Your task to perform on an android device: Go to display settings Image 0: 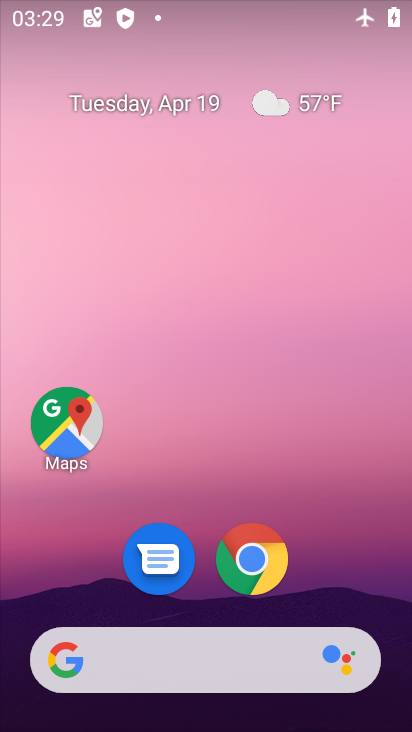
Step 0: click (214, 87)
Your task to perform on an android device: Go to display settings Image 1: 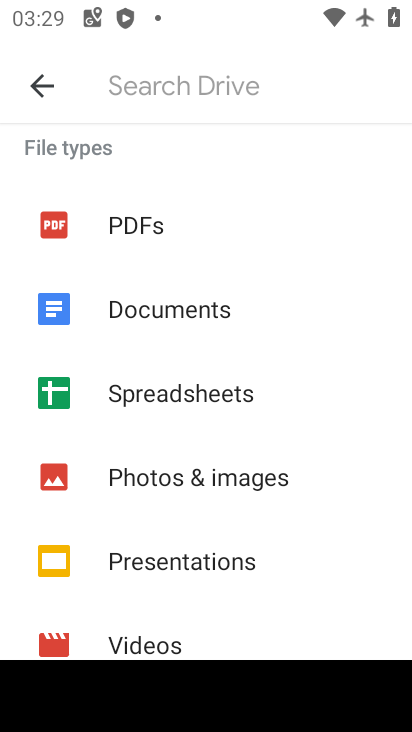
Step 1: press home button
Your task to perform on an android device: Go to display settings Image 2: 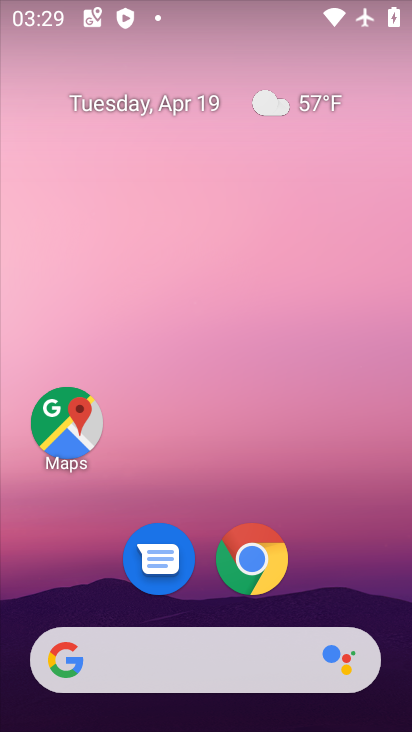
Step 2: drag from (202, 593) to (216, 72)
Your task to perform on an android device: Go to display settings Image 3: 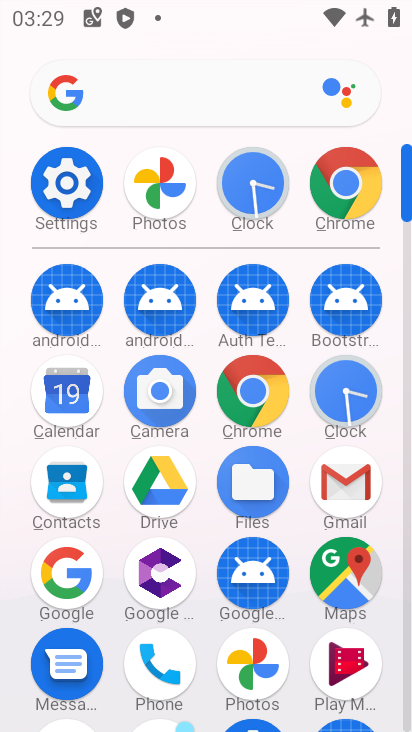
Step 3: click (71, 181)
Your task to perform on an android device: Go to display settings Image 4: 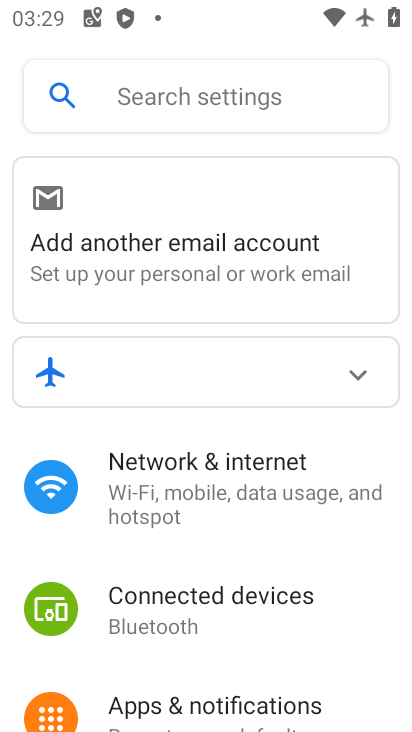
Step 4: drag from (197, 682) to (220, 90)
Your task to perform on an android device: Go to display settings Image 5: 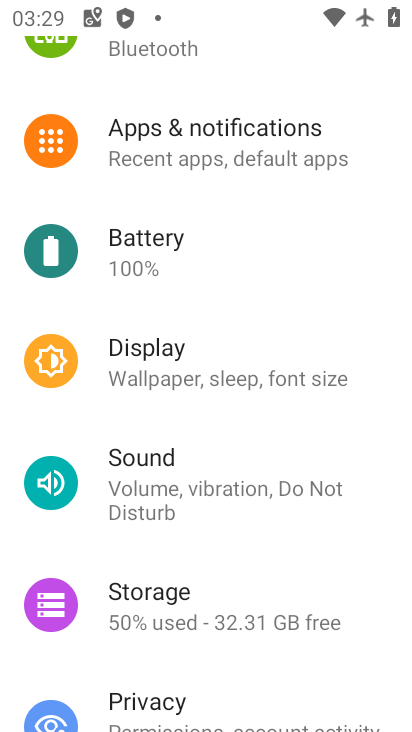
Step 5: click (174, 336)
Your task to perform on an android device: Go to display settings Image 6: 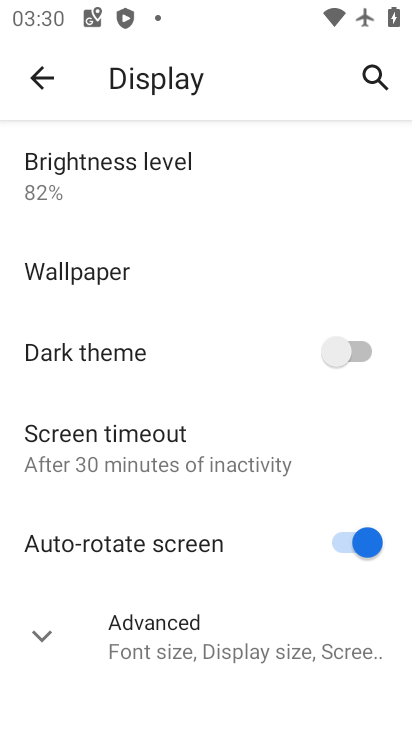
Step 6: click (47, 639)
Your task to perform on an android device: Go to display settings Image 7: 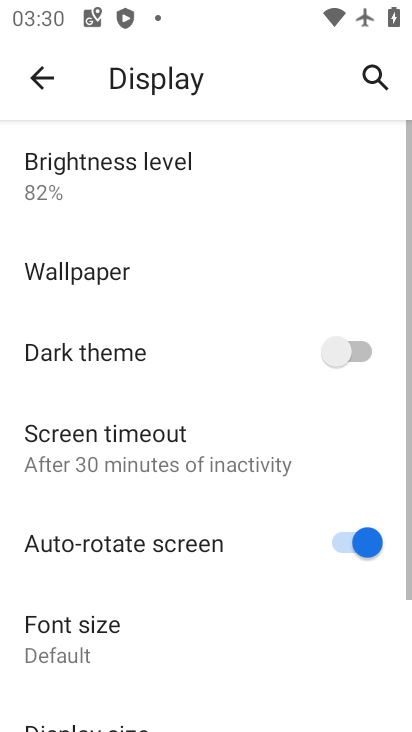
Step 7: task complete